Your task to perform on an android device: Go to Android settings Image 0: 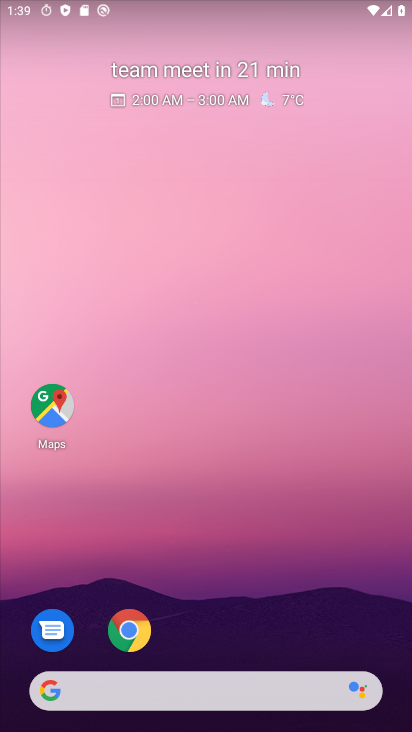
Step 0: drag from (236, 680) to (189, 170)
Your task to perform on an android device: Go to Android settings Image 1: 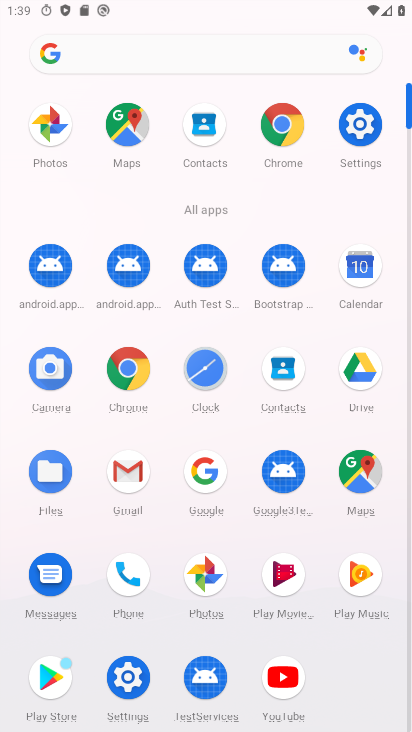
Step 1: click (364, 128)
Your task to perform on an android device: Go to Android settings Image 2: 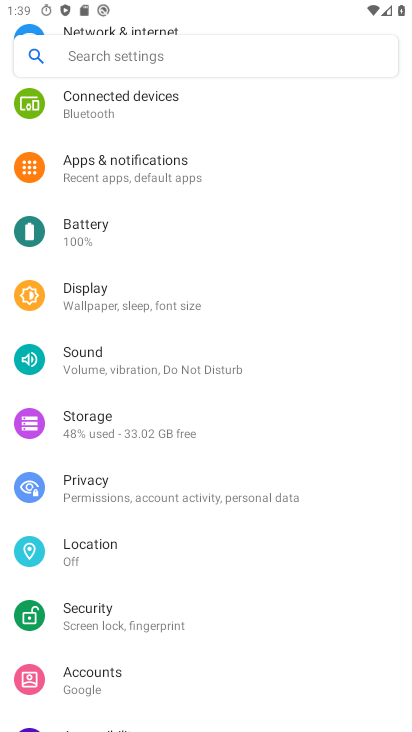
Step 2: drag from (225, 539) to (192, 41)
Your task to perform on an android device: Go to Android settings Image 3: 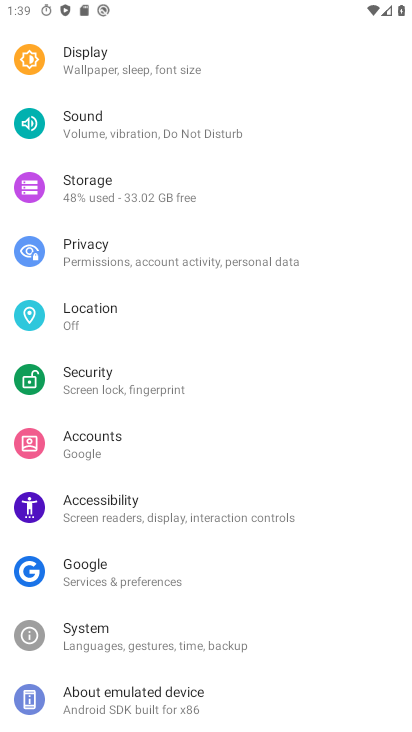
Step 3: click (170, 697)
Your task to perform on an android device: Go to Android settings Image 4: 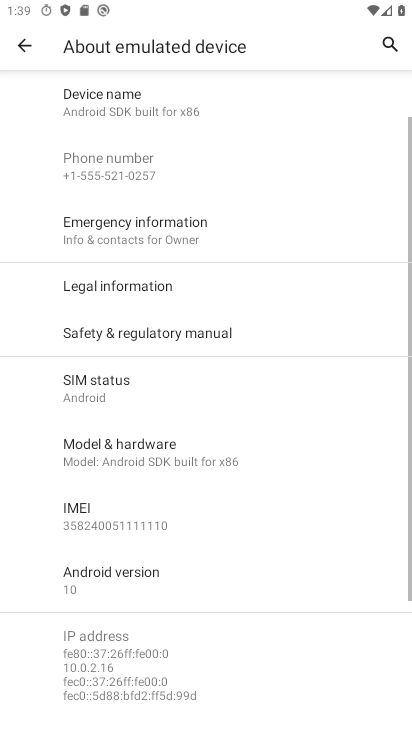
Step 4: click (126, 585)
Your task to perform on an android device: Go to Android settings Image 5: 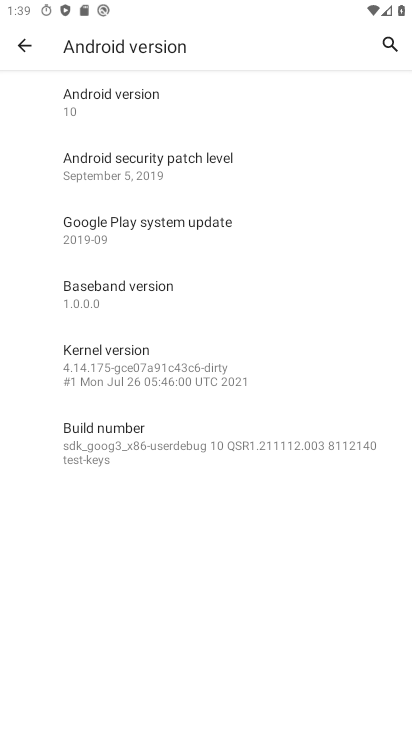
Step 5: task complete